Your task to perform on an android device: turn off notifications settings in the gmail app Image 0: 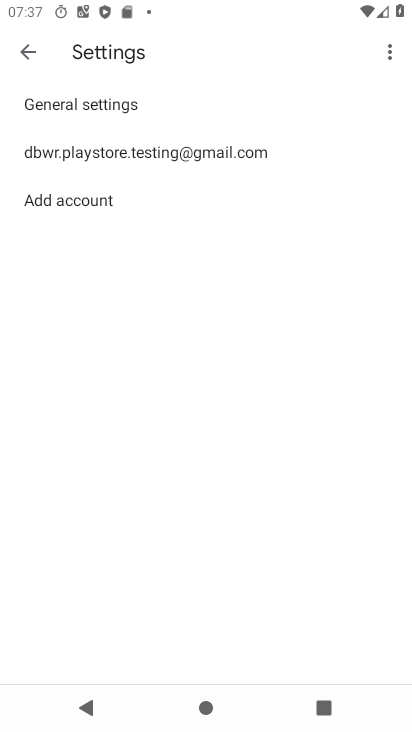
Step 0: press home button
Your task to perform on an android device: turn off notifications settings in the gmail app Image 1: 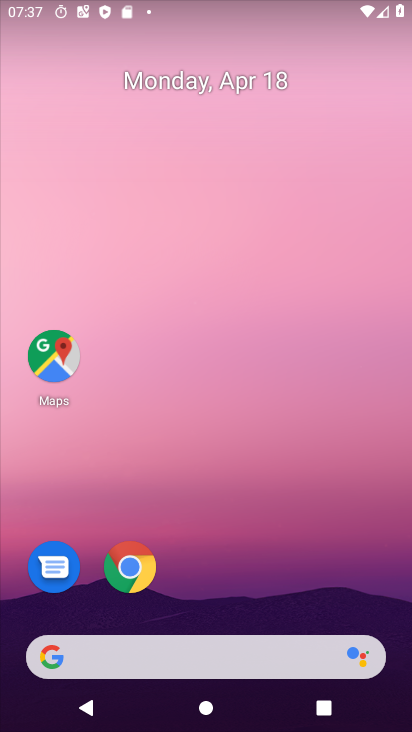
Step 1: drag from (237, 585) to (160, 18)
Your task to perform on an android device: turn off notifications settings in the gmail app Image 2: 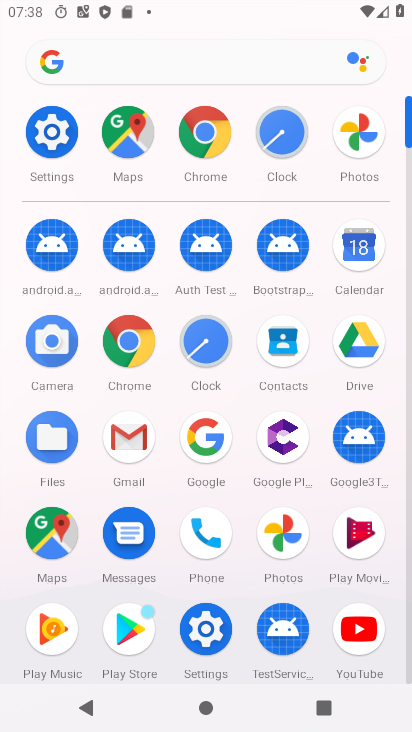
Step 2: click (128, 426)
Your task to perform on an android device: turn off notifications settings in the gmail app Image 3: 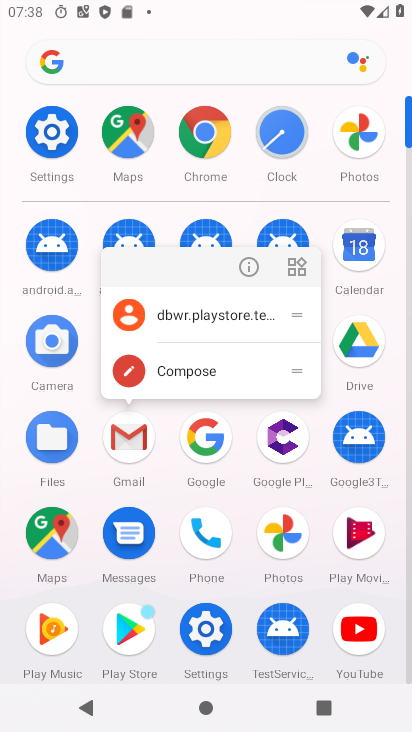
Step 3: click (254, 264)
Your task to perform on an android device: turn off notifications settings in the gmail app Image 4: 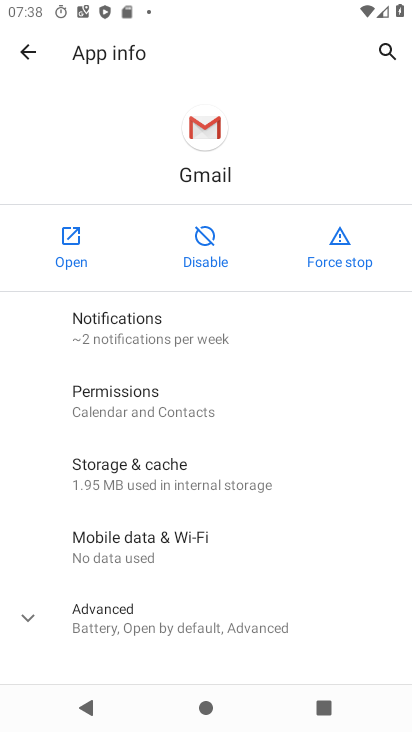
Step 4: click (193, 331)
Your task to perform on an android device: turn off notifications settings in the gmail app Image 5: 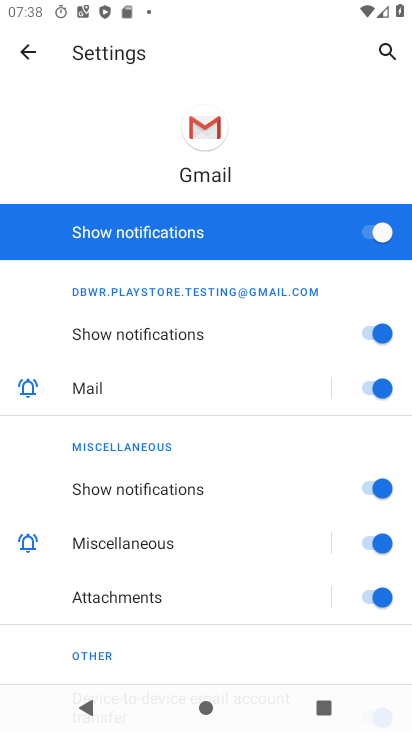
Step 5: click (371, 230)
Your task to perform on an android device: turn off notifications settings in the gmail app Image 6: 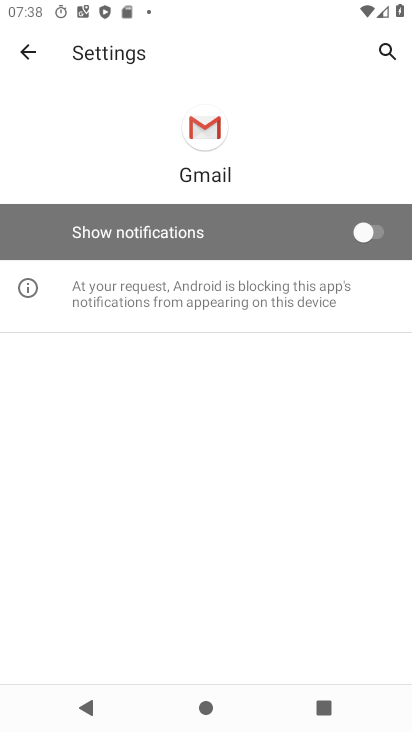
Step 6: task complete